Your task to perform on an android device: turn on the 12-hour format for clock Image 0: 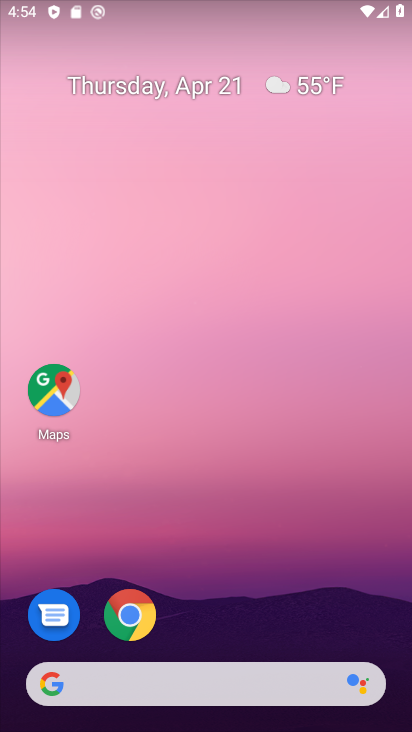
Step 0: drag from (259, 528) to (213, 56)
Your task to perform on an android device: turn on the 12-hour format for clock Image 1: 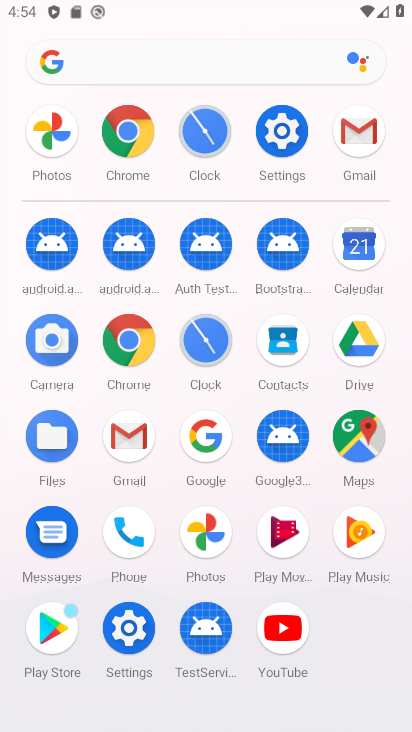
Step 1: drag from (9, 490) to (1, 296)
Your task to perform on an android device: turn on the 12-hour format for clock Image 2: 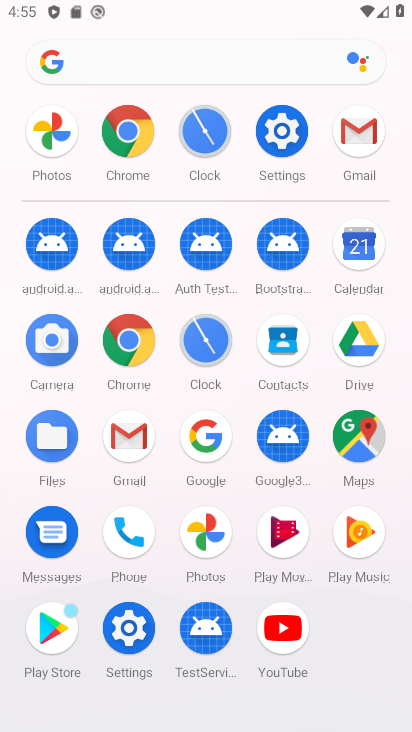
Step 2: click (200, 335)
Your task to perform on an android device: turn on the 12-hour format for clock Image 3: 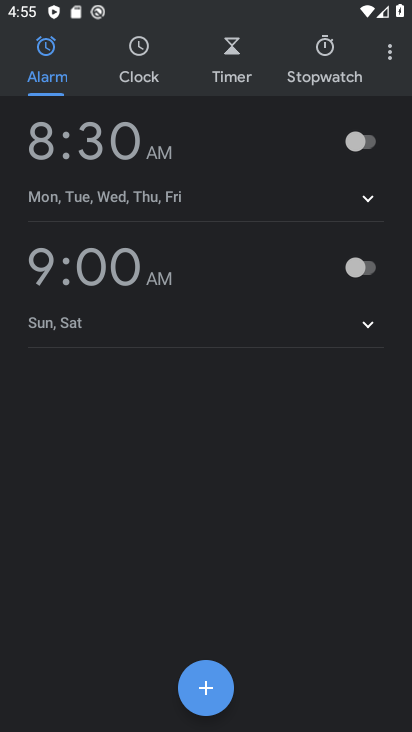
Step 3: click (391, 51)
Your task to perform on an android device: turn on the 12-hour format for clock Image 4: 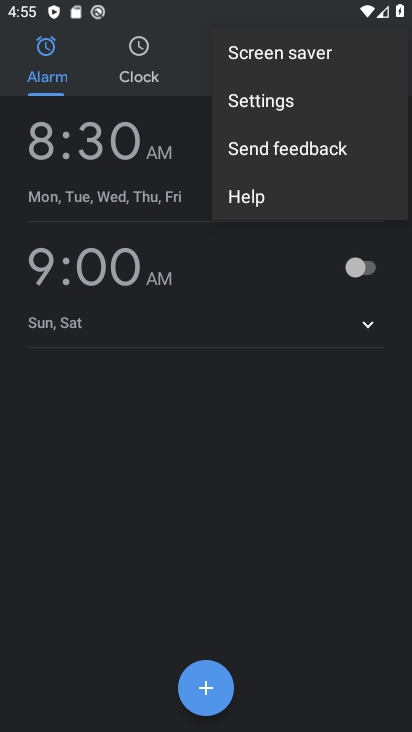
Step 4: click (284, 104)
Your task to perform on an android device: turn on the 12-hour format for clock Image 5: 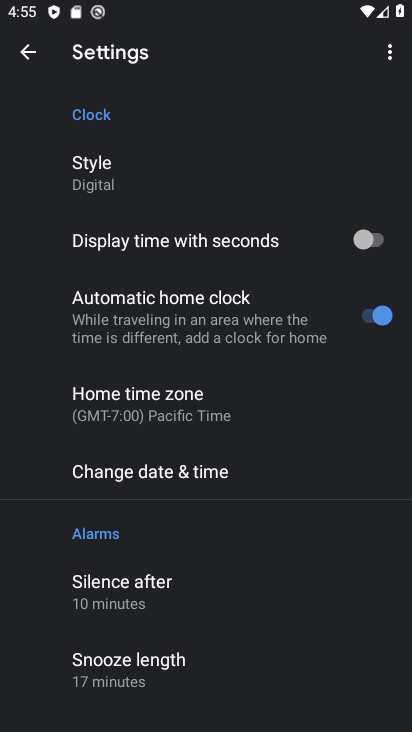
Step 5: click (215, 462)
Your task to perform on an android device: turn on the 12-hour format for clock Image 6: 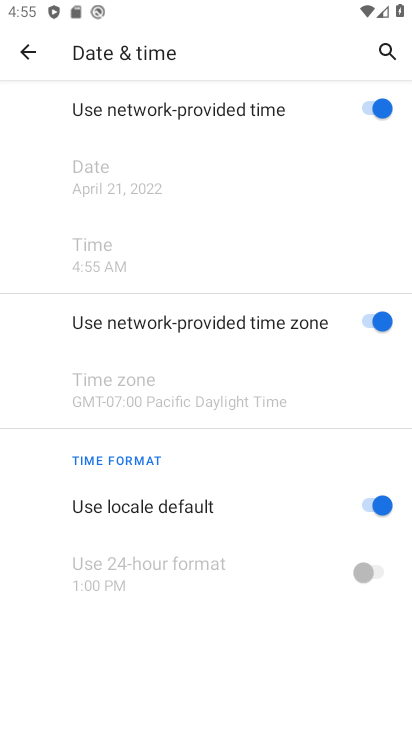
Step 6: task complete